Your task to perform on an android device: Go to notification settings Image 0: 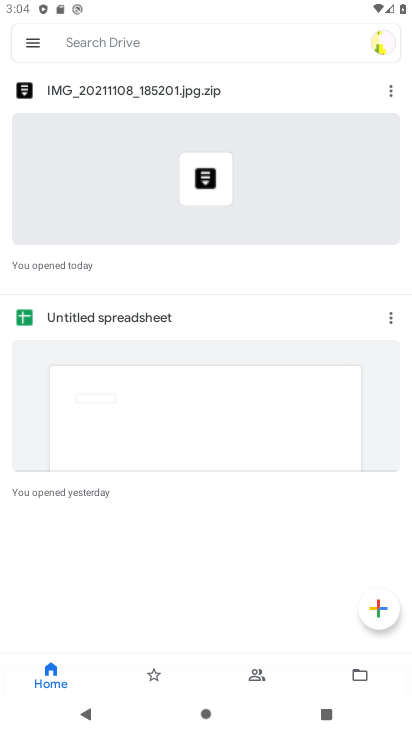
Step 0: press back button
Your task to perform on an android device: Go to notification settings Image 1: 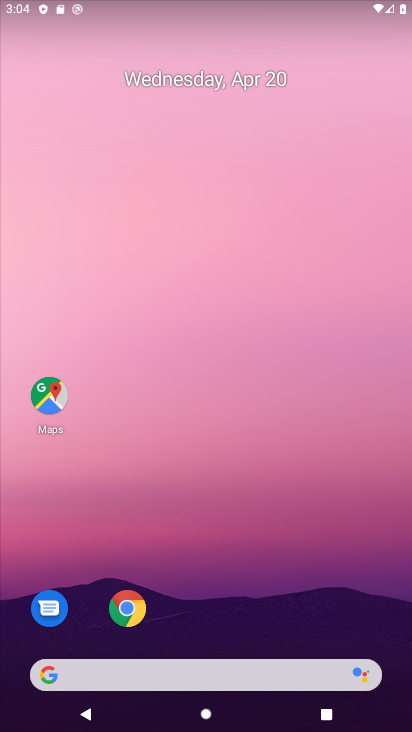
Step 1: drag from (217, 613) to (294, 20)
Your task to perform on an android device: Go to notification settings Image 2: 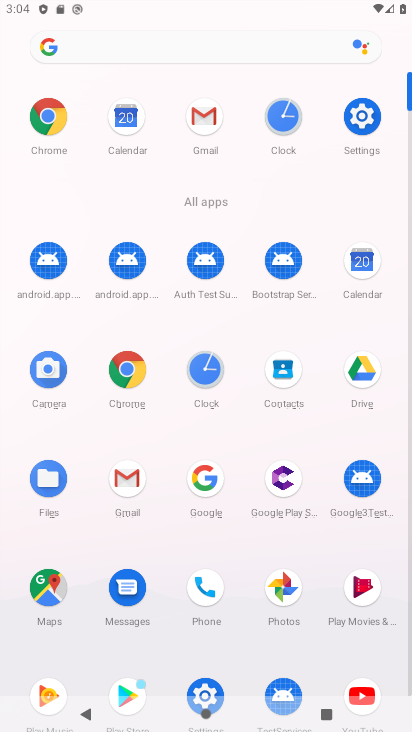
Step 2: click (352, 121)
Your task to perform on an android device: Go to notification settings Image 3: 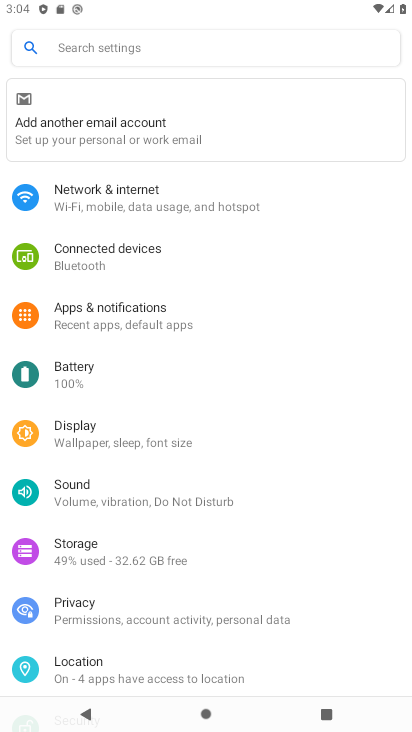
Step 3: click (101, 320)
Your task to perform on an android device: Go to notification settings Image 4: 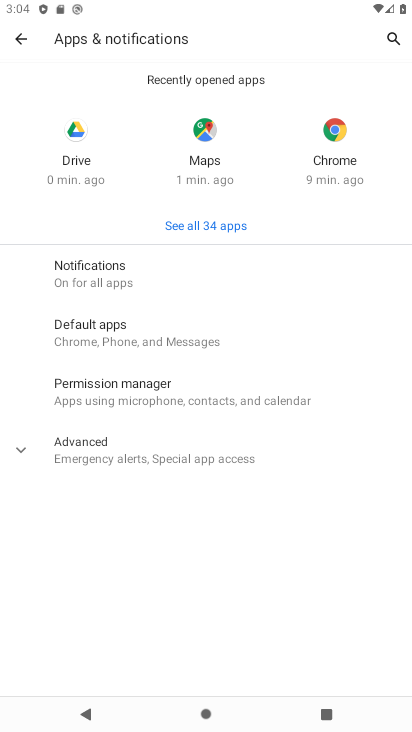
Step 4: click (141, 268)
Your task to perform on an android device: Go to notification settings Image 5: 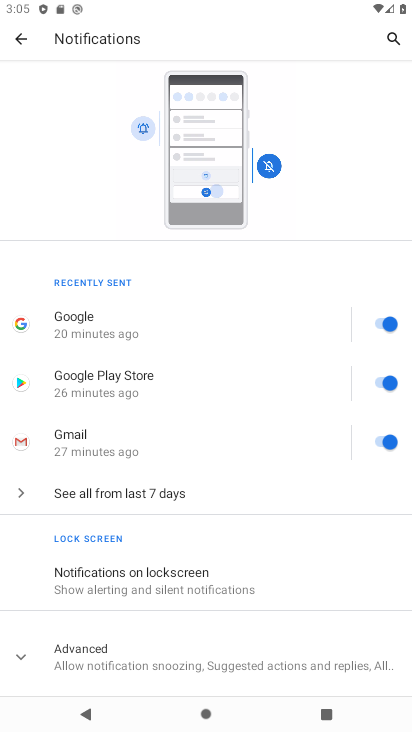
Step 5: task complete